Your task to perform on an android device: open app "Speedtest by Ookla" Image 0: 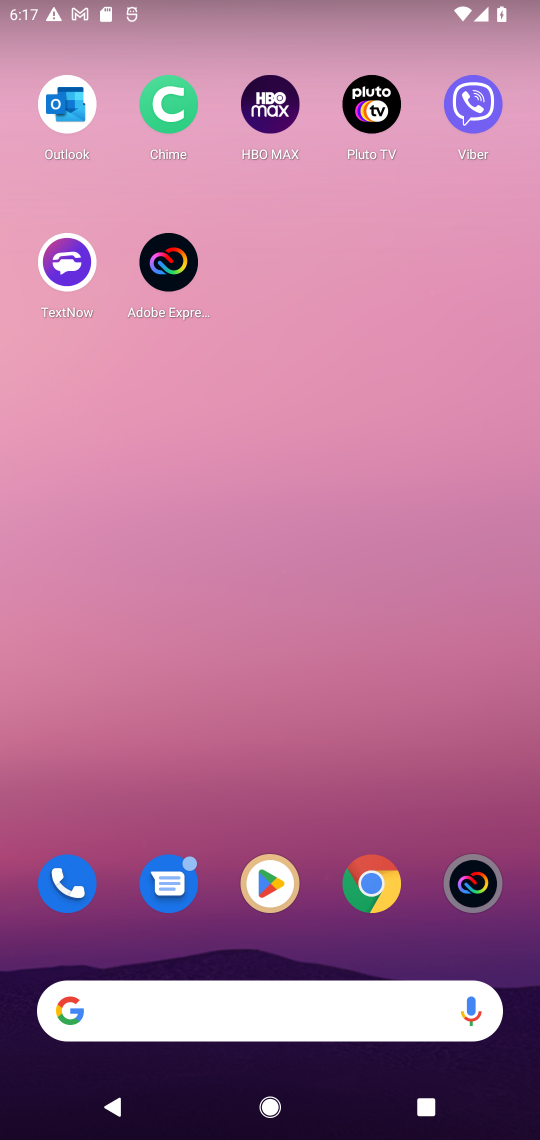
Step 0: click (271, 906)
Your task to perform on an android device: open app "Speedtest by Ookla" Image 1: 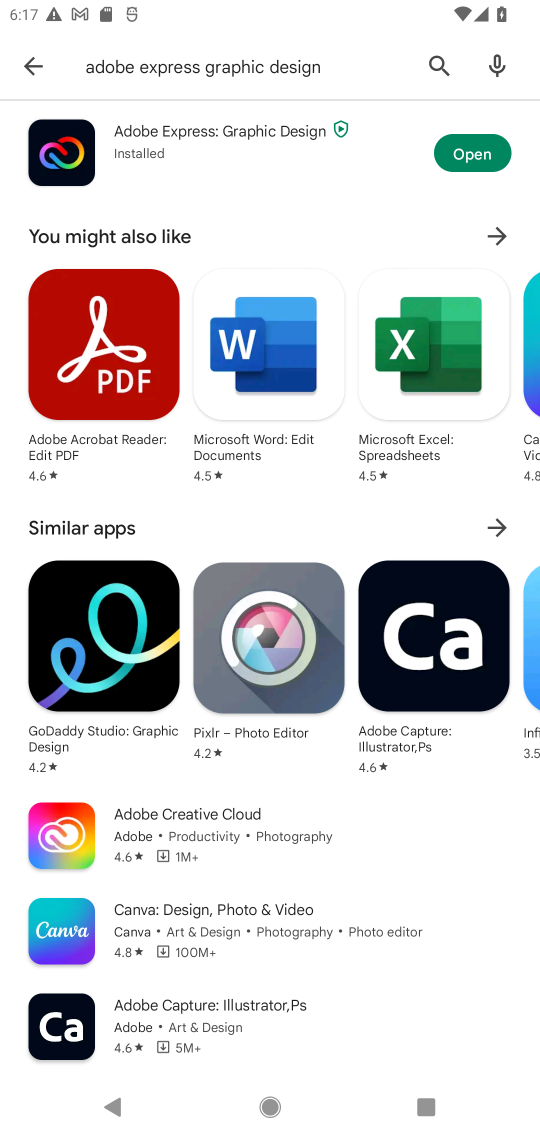
Step 1: click (451, 80)
Your task to perform on an android device: open app "Speedtest by Ookla" Image 2: 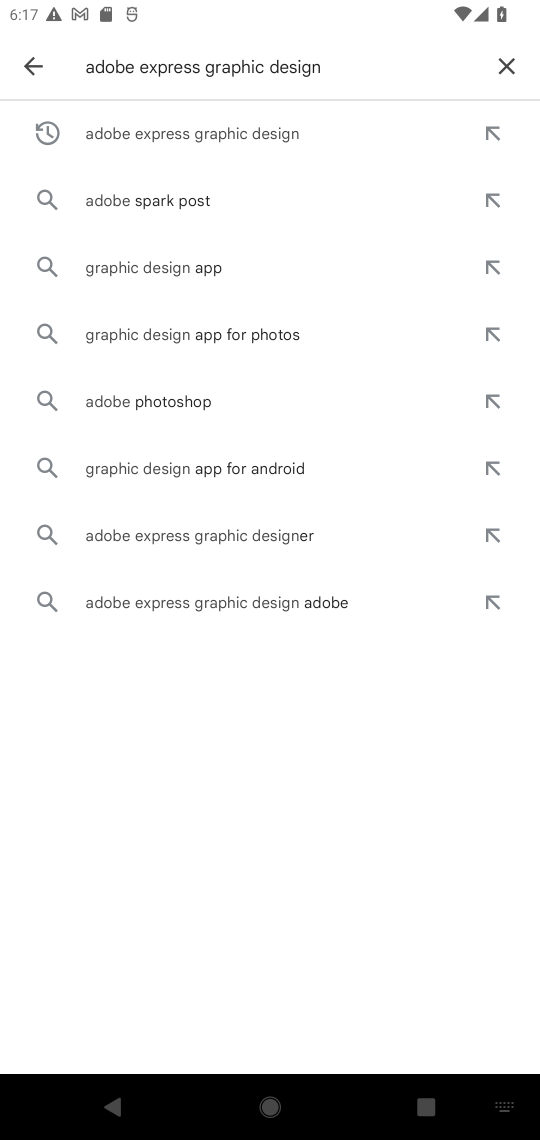
Step 2: click (504, 51)
Your task to perform on an android device: open app "Speedtest by Ookla" Image 3: 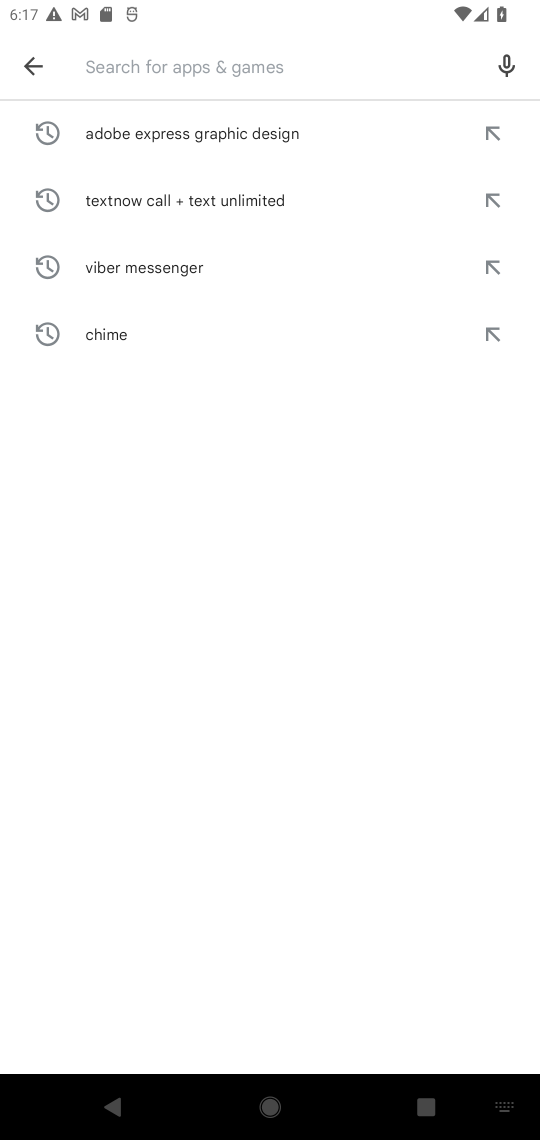
Step 3: type "Speedtest by Ookla"
Your task to perform on an android device: open app "Speedtest by Ookla" Image 4: 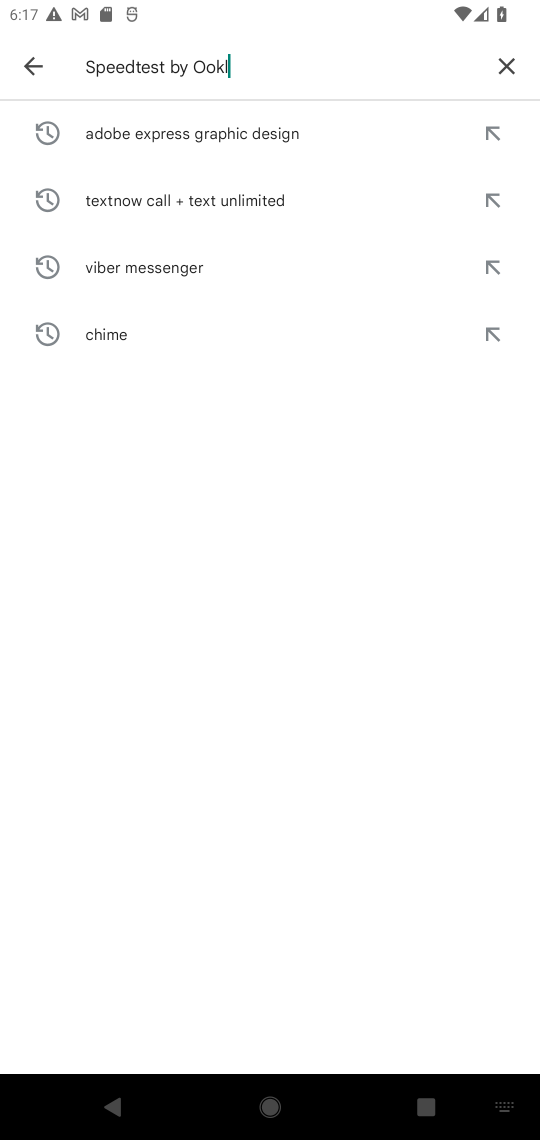
Step 4: type ""
Your task to perform on an android device: open app "Speedtest by Ookla" Image 5: 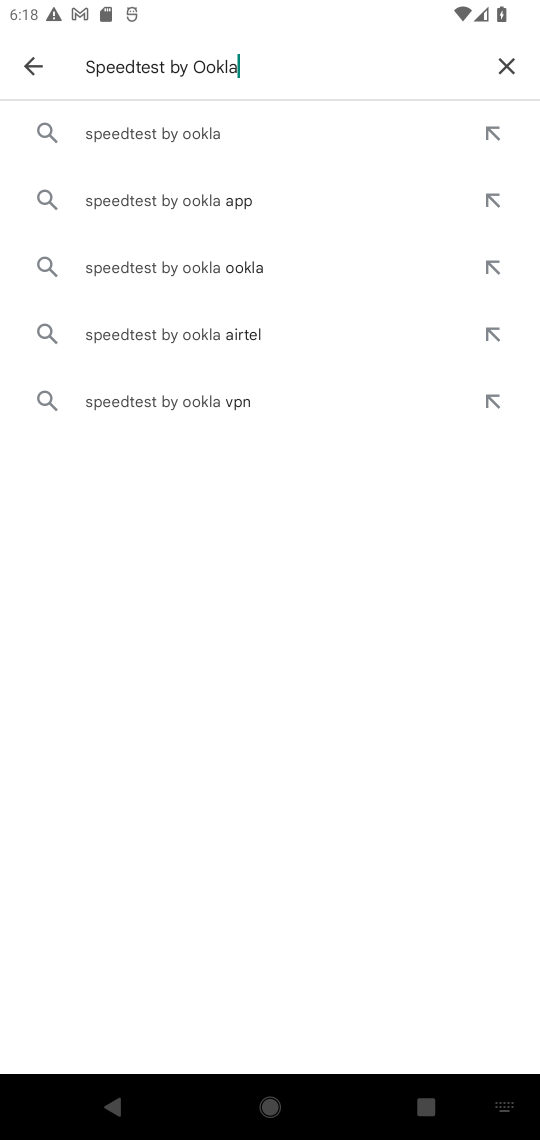
Step 5: click (173, 138)
Your task to perform on an android device: open app "Speedtest by Ookla" Image 6: 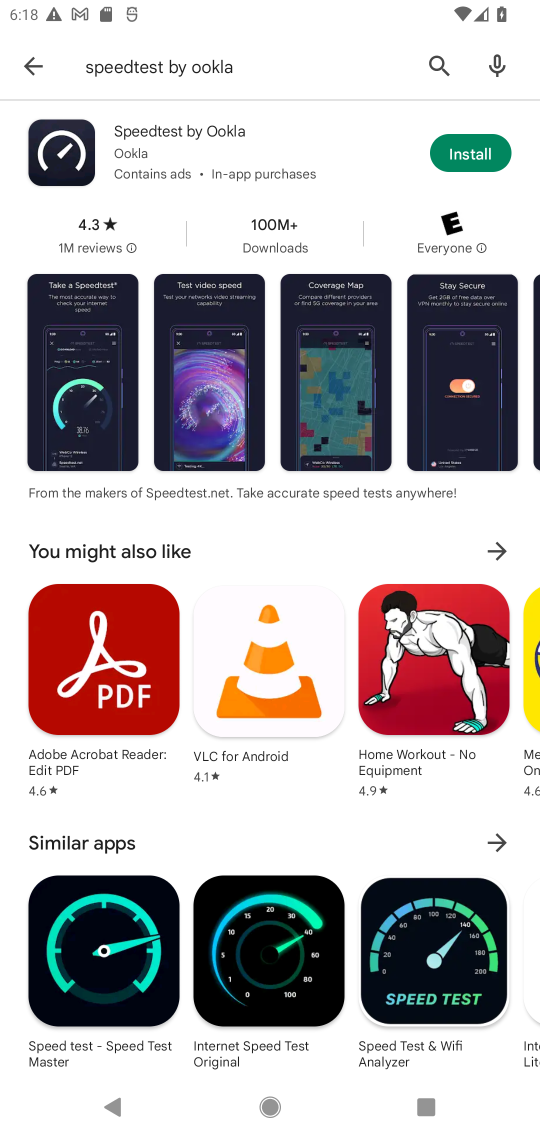
Step 6: task complete